Your task to perform on an android device: Go to privacy settings Image 0: 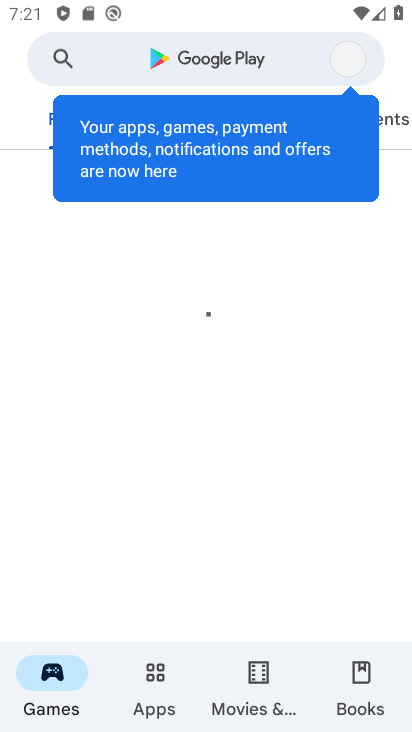
Step 0: press home button
Your task to perform on an android device: Go to privacy settings Image 1: 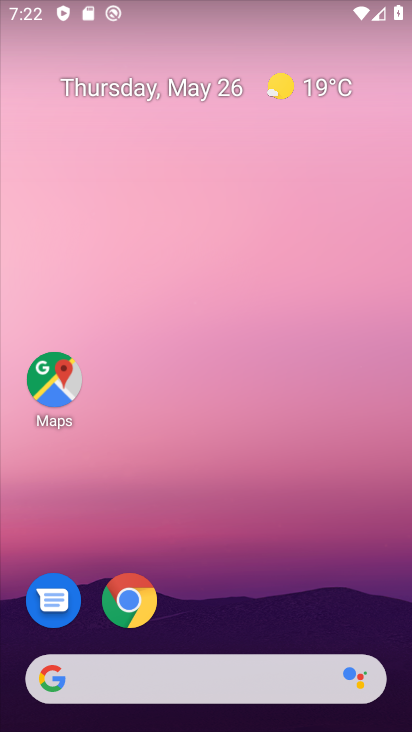
Step 1: drag from (277, 695) to (253, 152)
Your task to perform on an android device: Go to privacy settings Image 2: 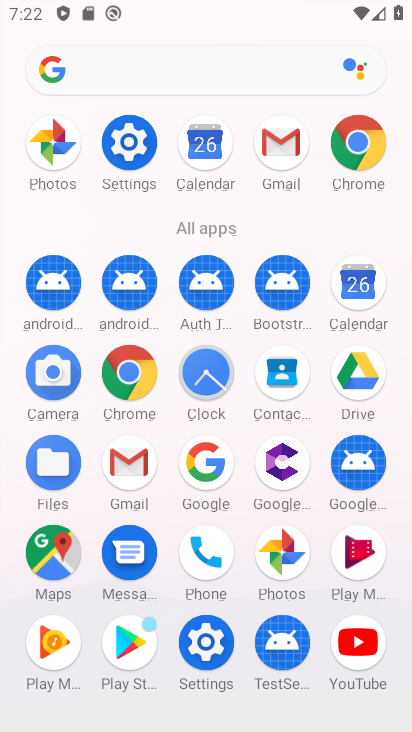
Step 2: click (136, 150)
Your task to perform on an android device: Go to privacy settings Image 3: 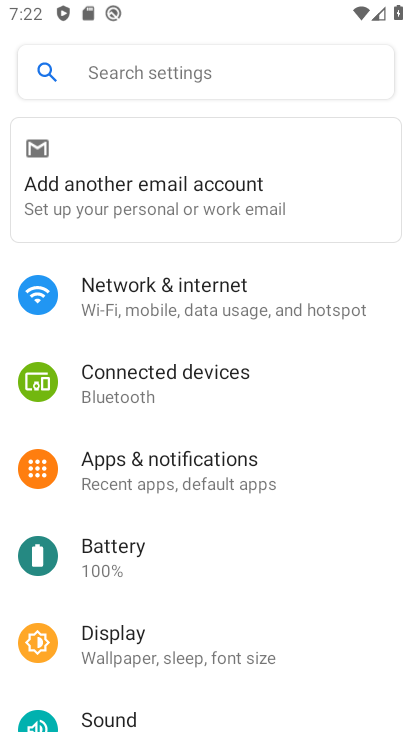
Step 3: drag from (250, 612) to (244, 169)
Your task to perform on an android device: Go to privacy settings Image 4: 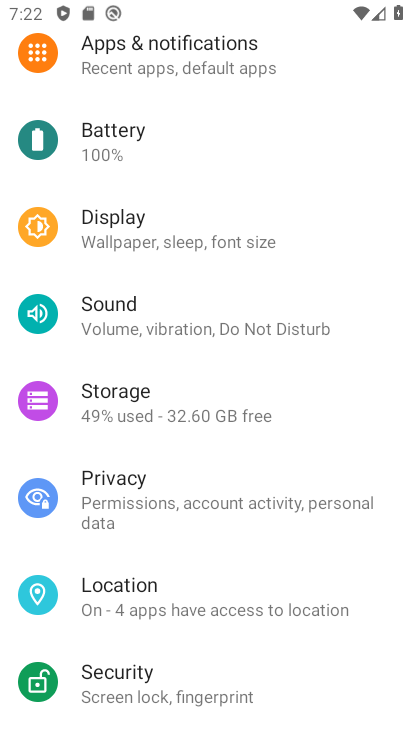
Step 4: click (164, 498)
Your task to perform on an android device: Go to privacy settings Image 5: 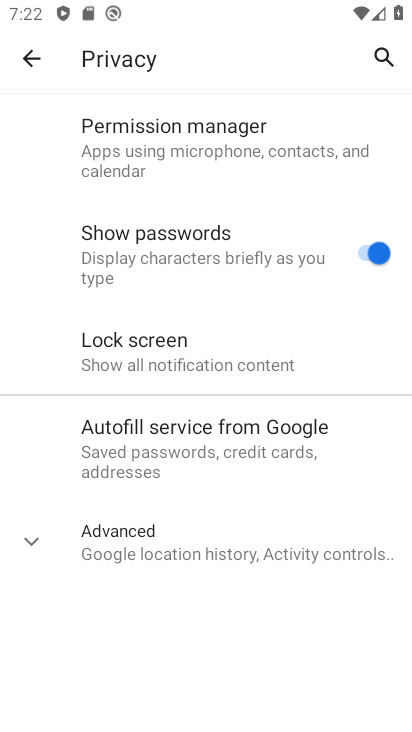
Step 5: task complete